Your task to perform on an android device: Search for vegetarian restaurants on Maps Image 0: 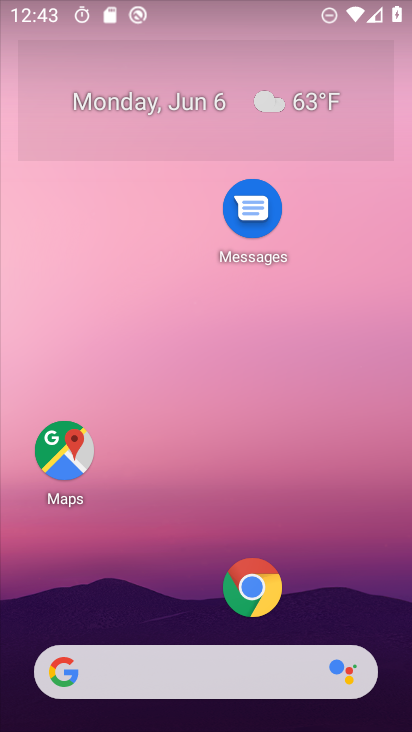
Step 0: click (329, 292)
Your task to perform on an android device: Search for vegetarian restaurants on Maps Image 1: 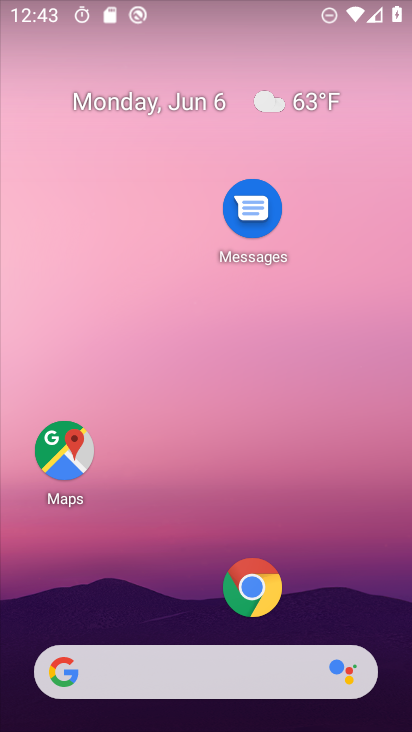
Step 1: click (40, 446)
Your task to perform on an android device: Search for vegetarian restaurants on Maps Image 2: 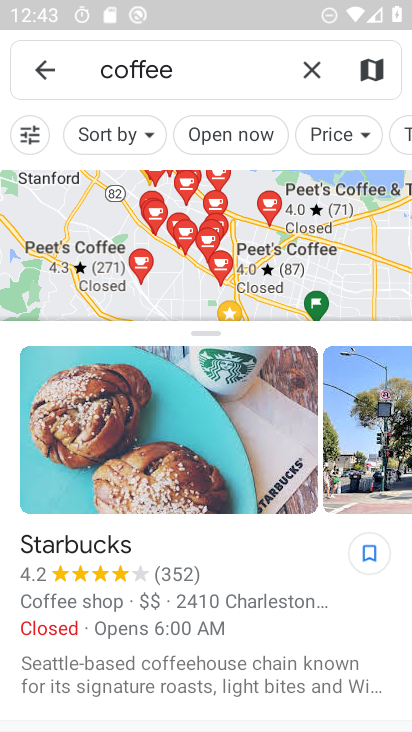
Step 2: click (306, 67)
Your task to perform on an android device: Search for vegetarian restaurants on Maps Image 3: 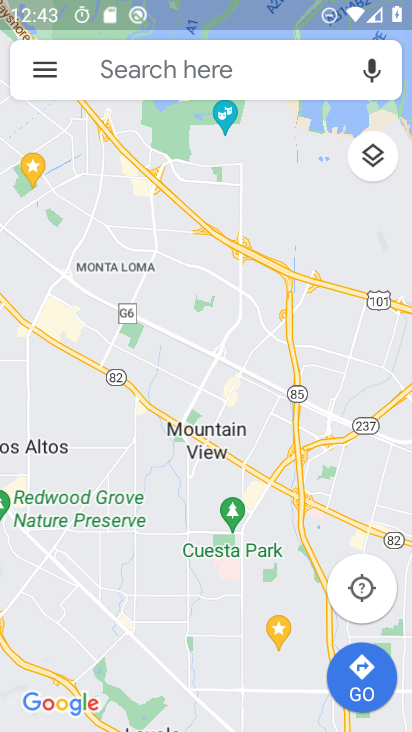
Step 3: click (214, 75)
Your task to perform on an android device: Search for vegetarian restaurants on Maps Image 4: 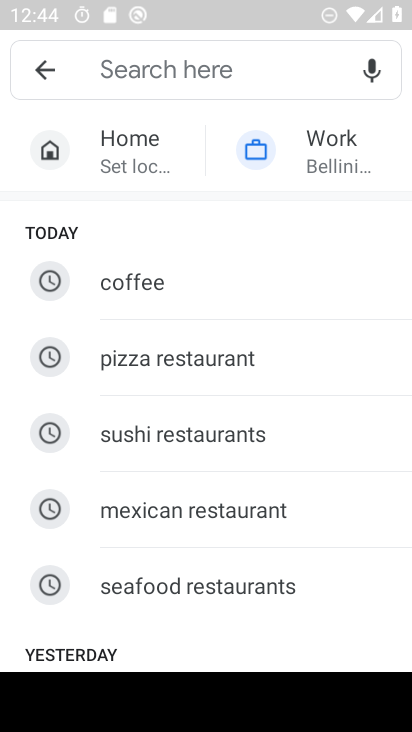
Step 4: type " vegetarian restaurabr"
Your task to perform on an android device: Search for vegetarian restaurants on Maps Image 5: 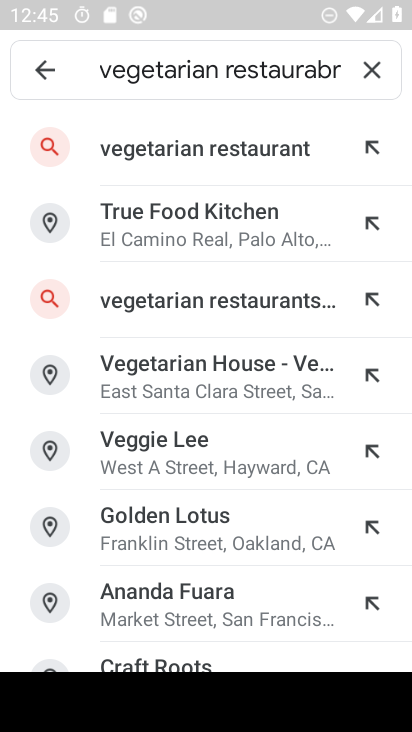
Step 5: click (101, 146)
Your task to perform on an android device: Search for vegetarian restaurants on Maps Image 6: 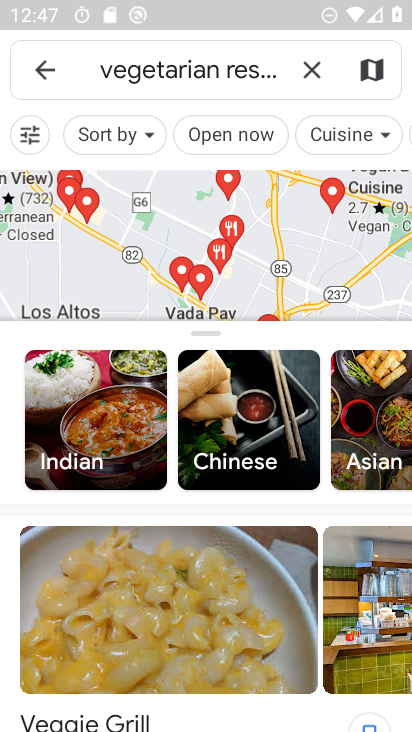
Step 6: task complete